Your task to perform on an android device: toggle data saver in the chrome app Image 0: 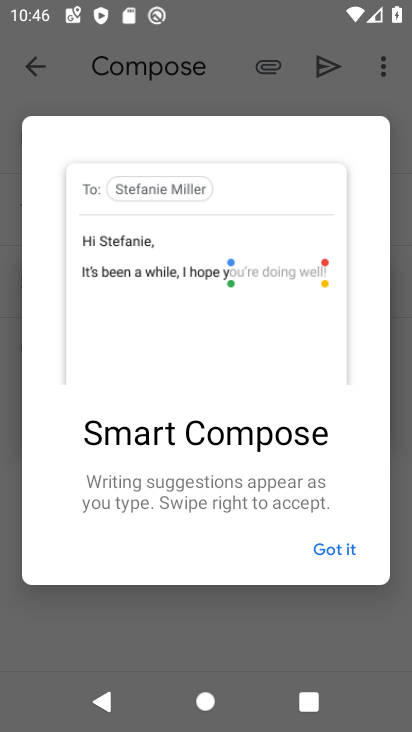
Step 0: press home button
Your task to perform on an android device: toggle data saver in the chrome app Image 1: 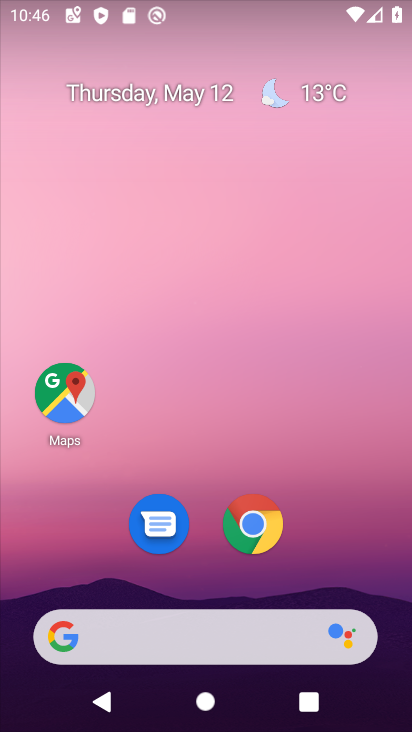
Step 1: click (254, 526)
Your task to perform on an android device: toggle data saver in the chrome app Image 2: 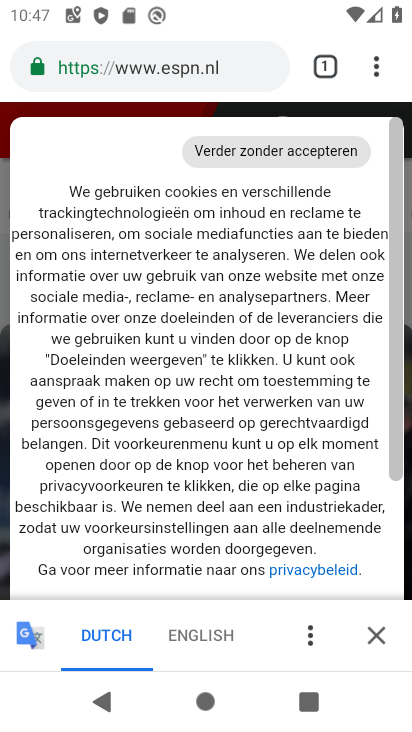
Step 2: click (373, 57)
Your task to perform on an android device: toggle data saver in the chrome app Image 3: 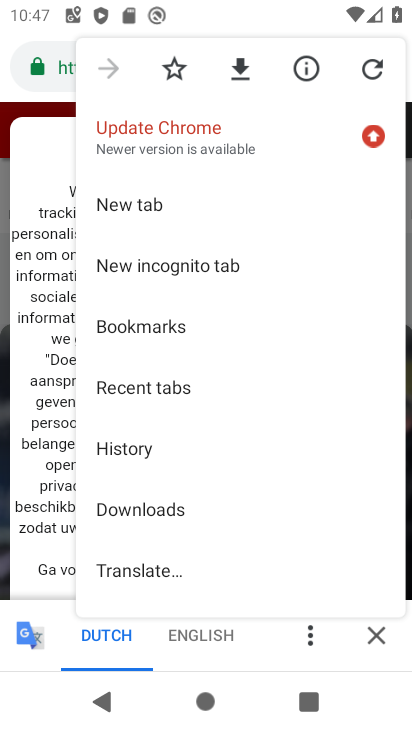
Step 3: drag from (217, 489) to (261, 163)
Your task to perform on an android device: toggle data saver in the chrome app Image 4: 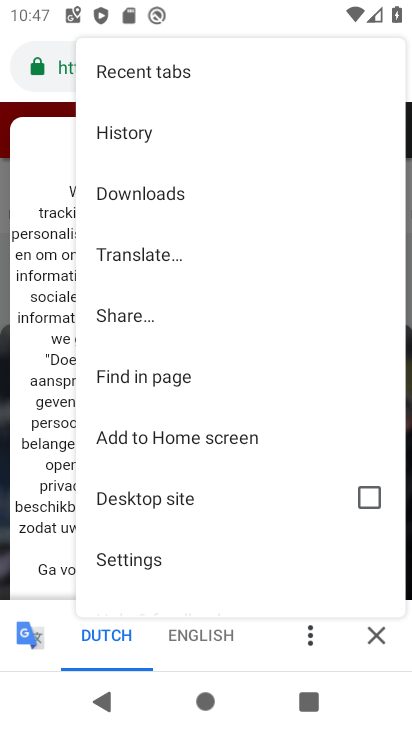
Step 4: click (176, 562)
Your task to perform on an android device: toggle data saver in the chrome app Image 5: 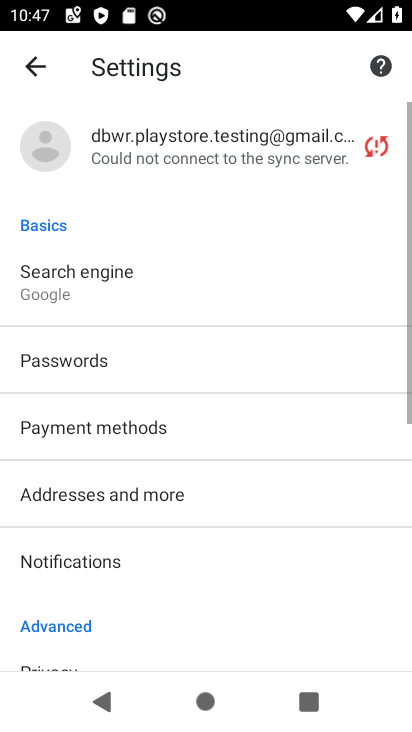
Step 5: drag from (227, 600) to (307, 141)
Your task to perform on an android device: toggle data saver in the chrome app Image 6: 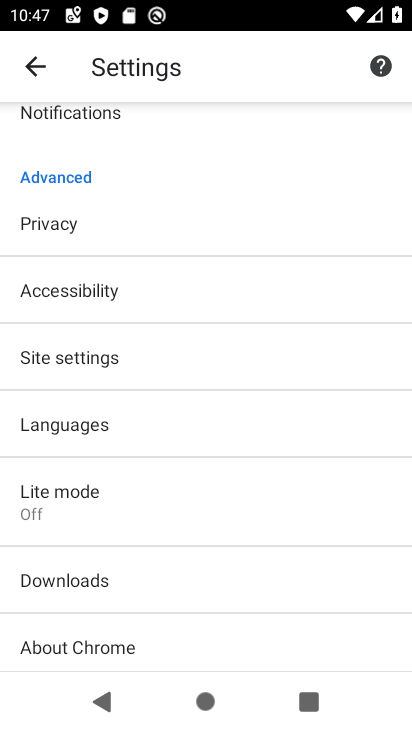
Step 6: click (149, 501)
Your task to perform on an android device: toggle data saver in the chrome app Image 7: 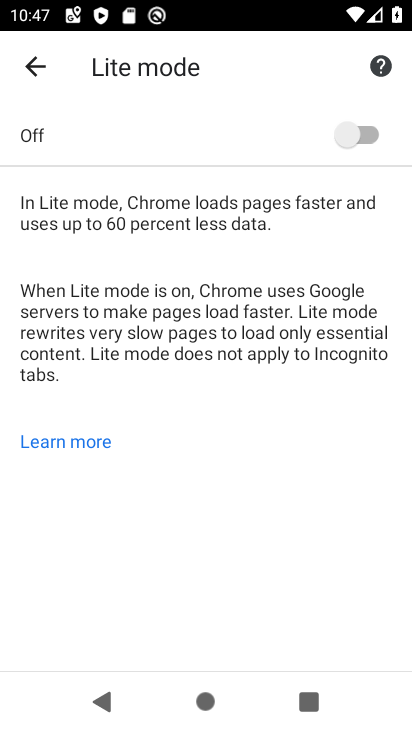
Step 7: click (373, 126)
Your task to perform on an android device: toggle data saver in the chrome app Image 8: 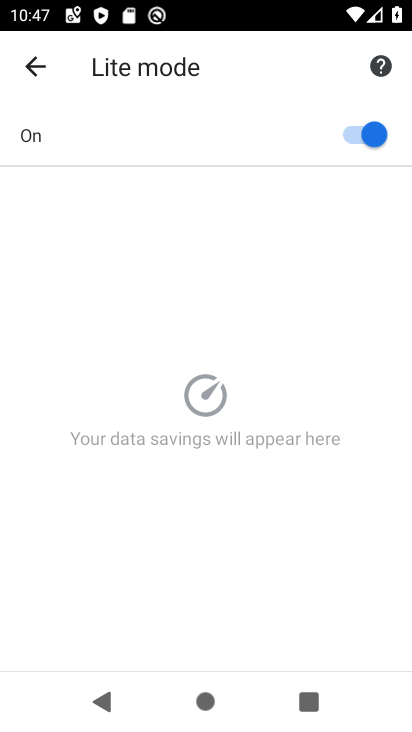
Step 8: task complete